Your task to perform on an android device: Go to notification settings Image 0: 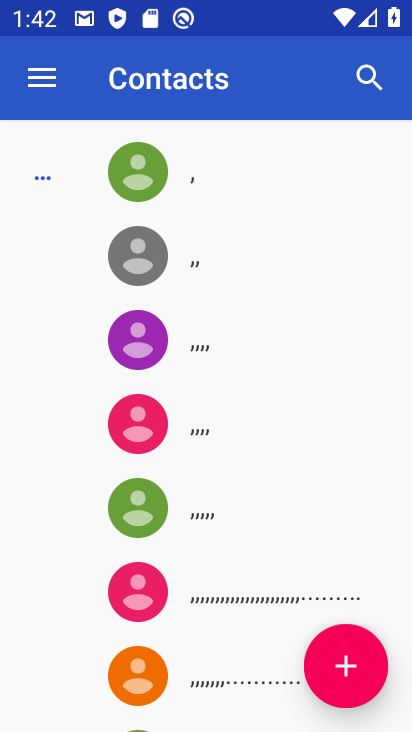
Step 0: press home button
Your task to perform on an android device: Go to notification settings Image 1: 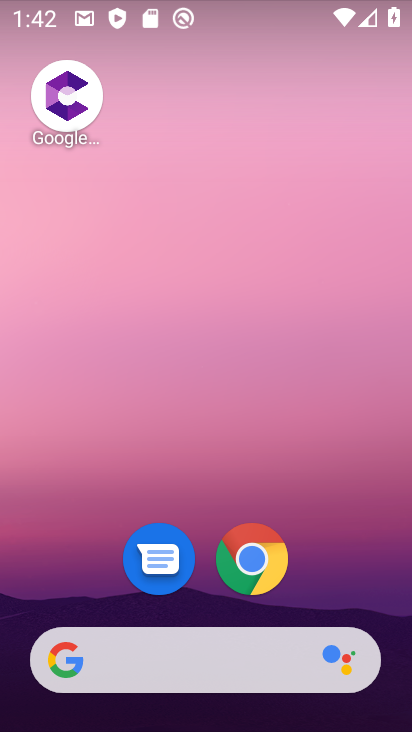
Step 1: drag from (286, 620) to (311, 731)
Your task to perform on an android device: Go to notification settings Image 2: 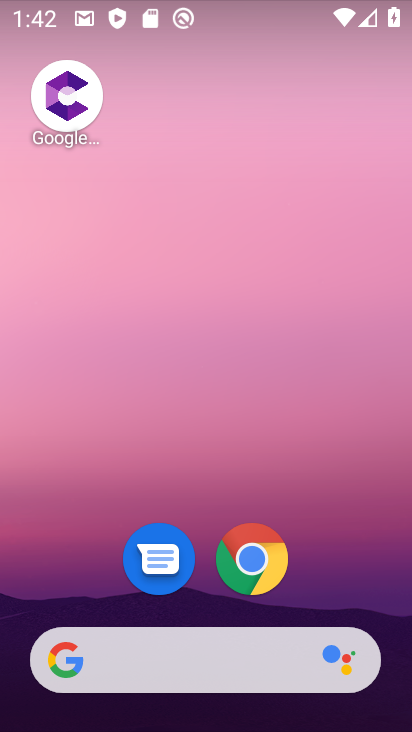
Step 2: drag from (334, 624) to (289, 25)
Your task to perform on an android device: Go to notification settings Image 3: 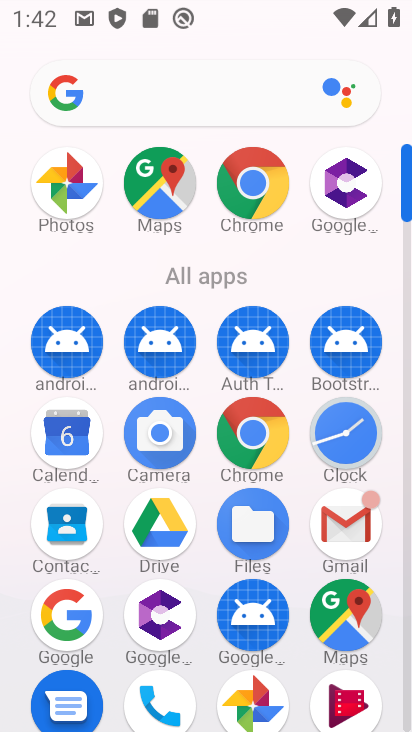
Step 3: drag from (310, 643) to (293, 150)
Your task to perform on an android device: Go to notification settings Image 4: 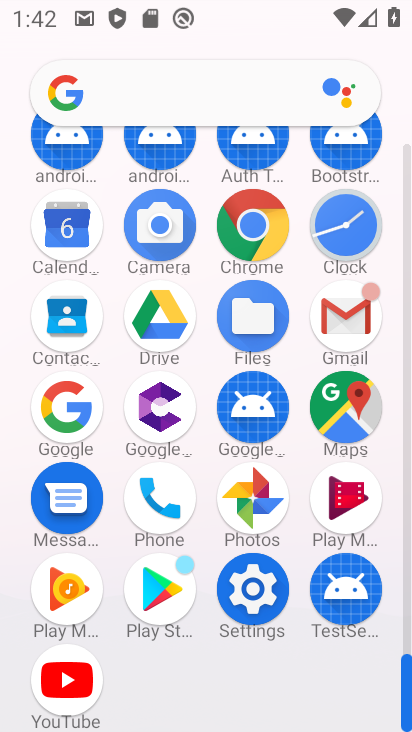
Step 4: click (251, 588)
Your task to perform on an android device: Go to notification settings Image 5: 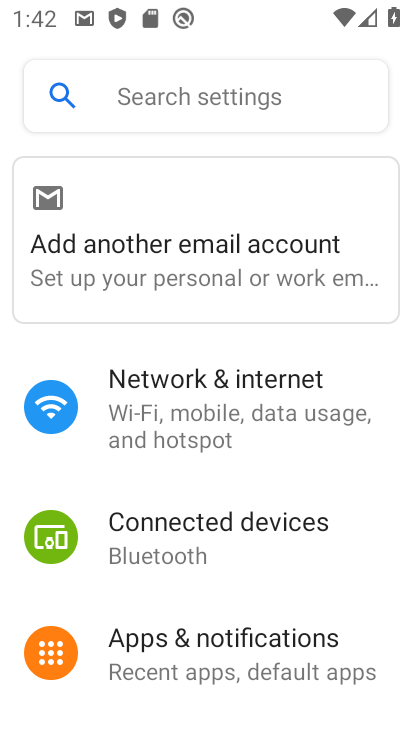
Step 5: drag from (317, 658) to (312, 298)
Your task to perform on an android device: Go to notification settings Image 6: 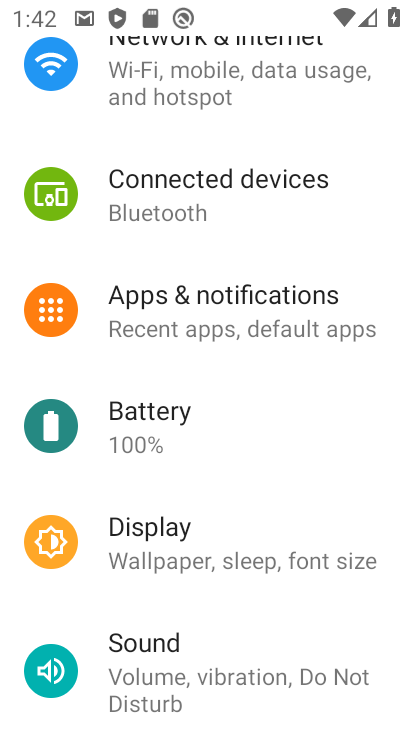
Step 6: click (315, 306)
Your task to perform on an android device: Go to notification settings Image 7: 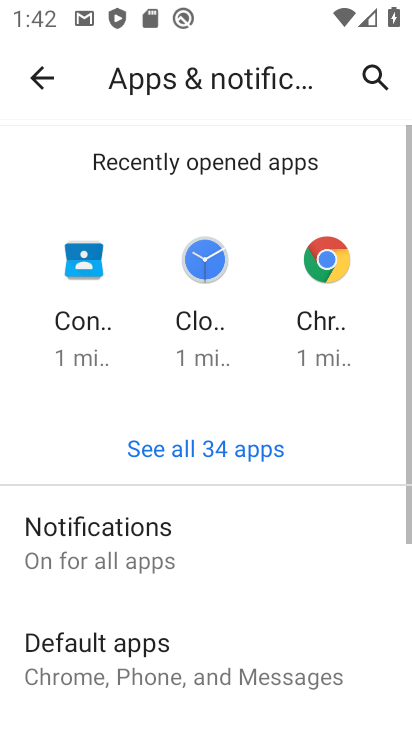
Step 7: click (190, 549)
Your task to perform on an android device: Go to notification settings Image 8: 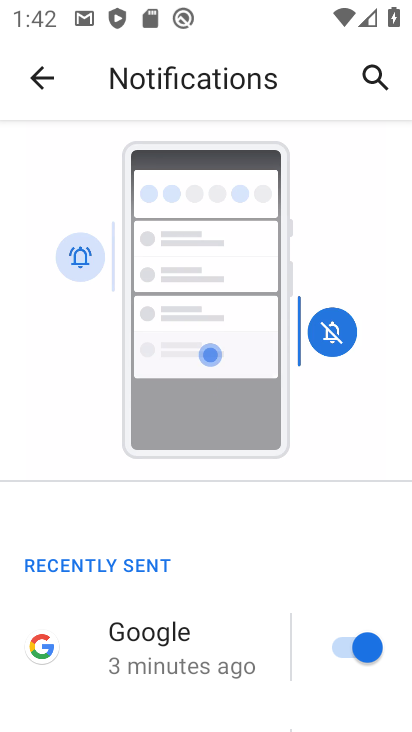
Step 8: click (91, 257)
Your task to perform on an android device: Go to notification settings Image 9: 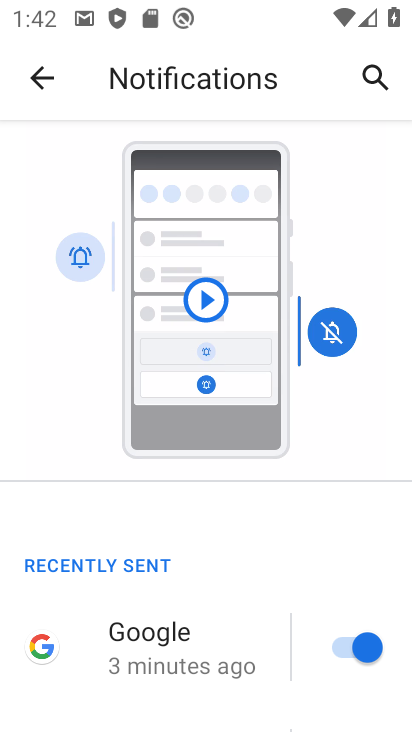
Step 9: click (87, 260)
Your task to perform on an android device: Go to notification settings Image 10: 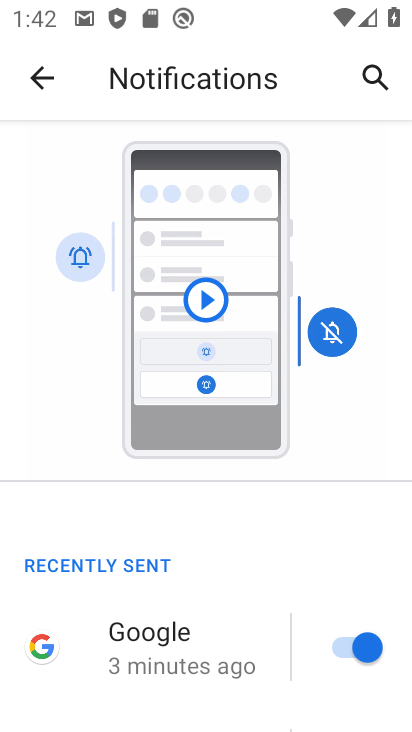
Step 10: click (86, 260)
Your task to perform on an android device: Go to notification settings Image 11: 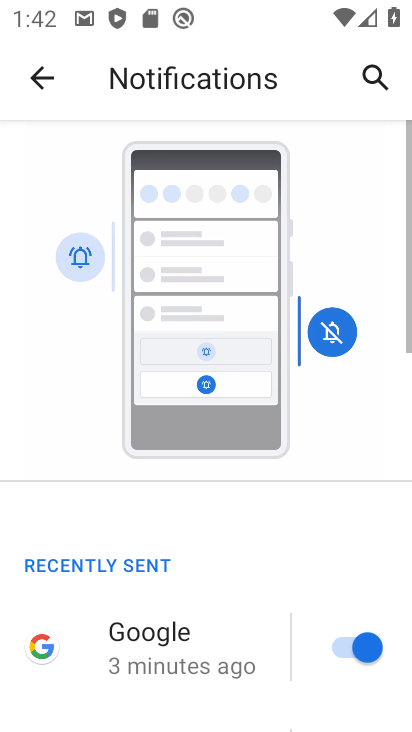
Step 11: click (85, 259)
Your task to perform on an android device: Go to notification settings Image 12: 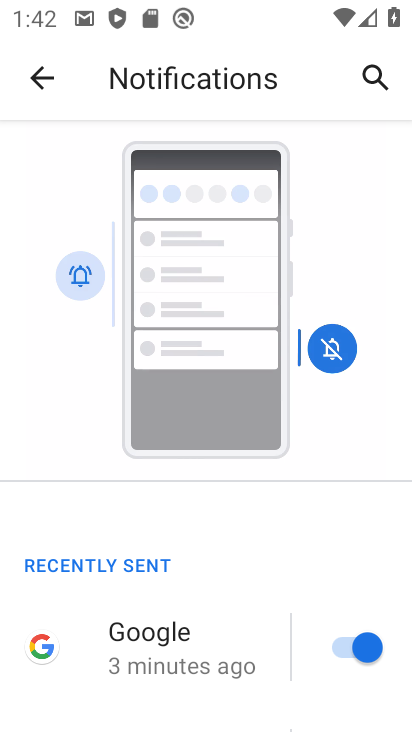
Step 12: task complete